Your task to perform on an android device: Go to calendar. Show me events next week Image 0: 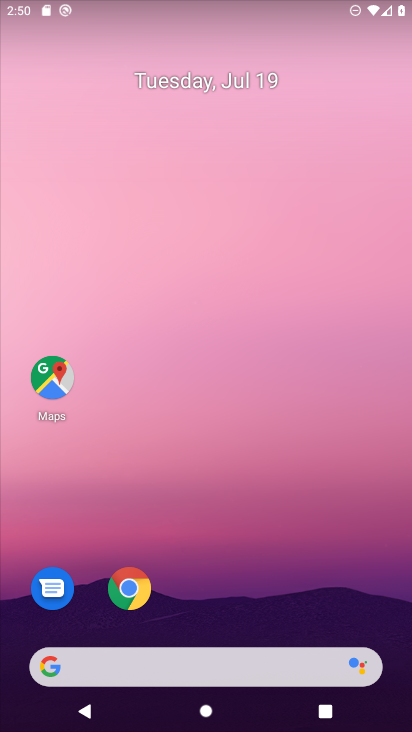
Step 0: drag from (172, 353) to (155, 64)
Your task to perform on an android device: Go to calendar. Show me events next week Image 1: 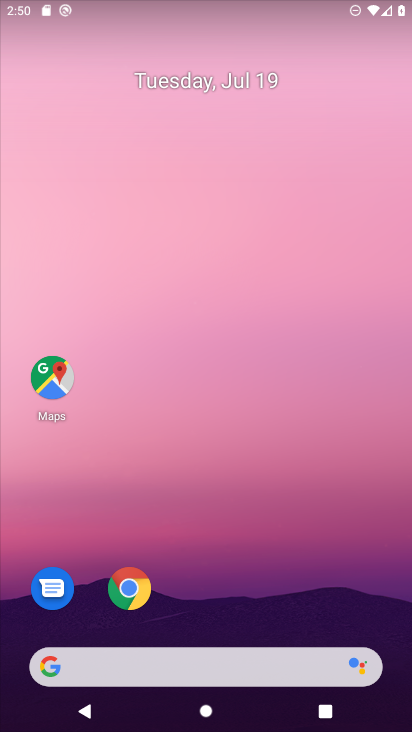
Step 1: drag from (209, 610) to (201, 268)
Your task to perform on an android device: Go to calendar. Show me events next week Image 2: 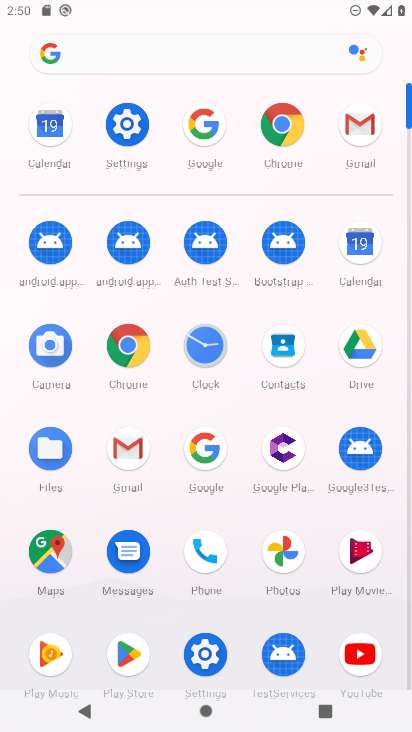
Step 2: click (364, 275)
Your task to perform on an android device: Go to calendar. Show me events next week Image 3: 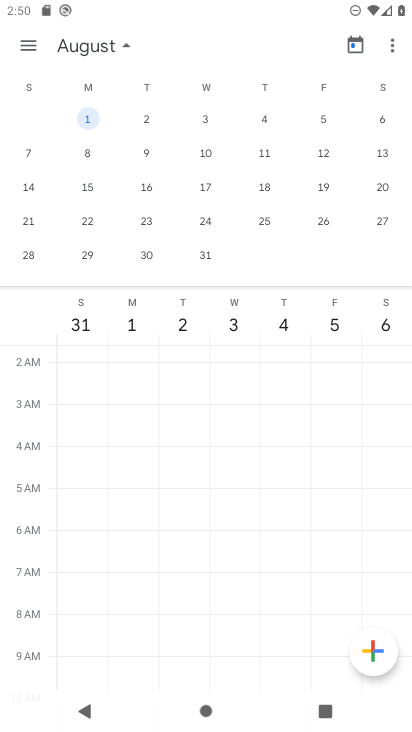
Step 3: drag from (90, 198) to (373, 216)
Your task to perform on an android device: Go to calendar. Show me events next week Image 4: 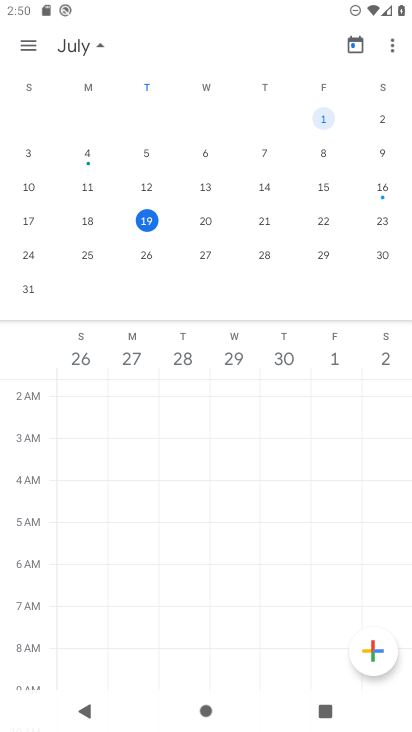
Step 4: click (31, 254)
Your task to perform on an android device: Go to calendar. Show me events next week Image 5: 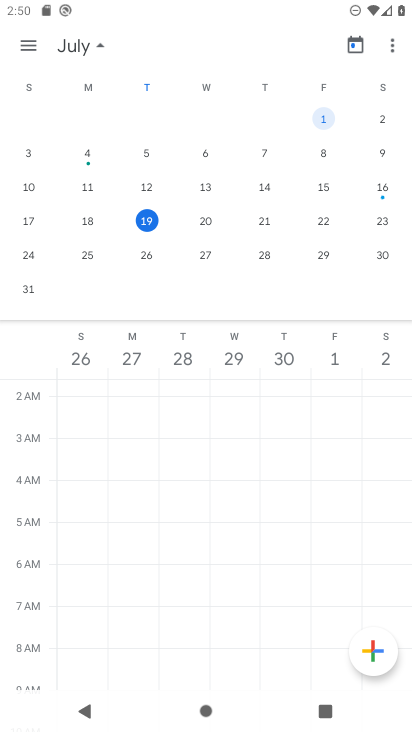
Step 5: click (31, 254)
Your task to perform on an android device: Go to calendar. Show me events next week Image 6: 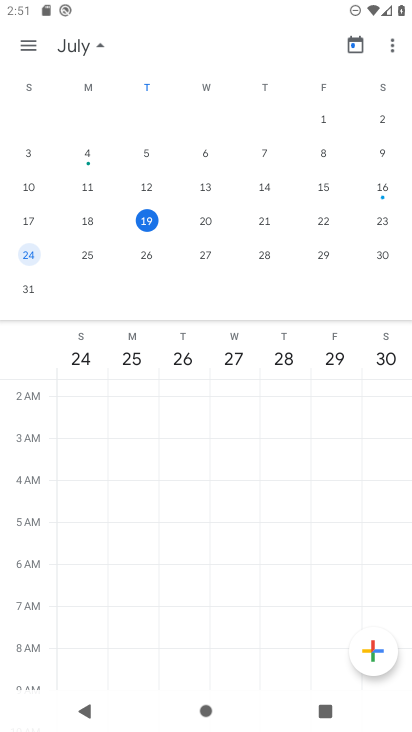
Step 6: task complete